Your task to perform on an android device: Add razer kraken to the cart on newegg.com Image 0: 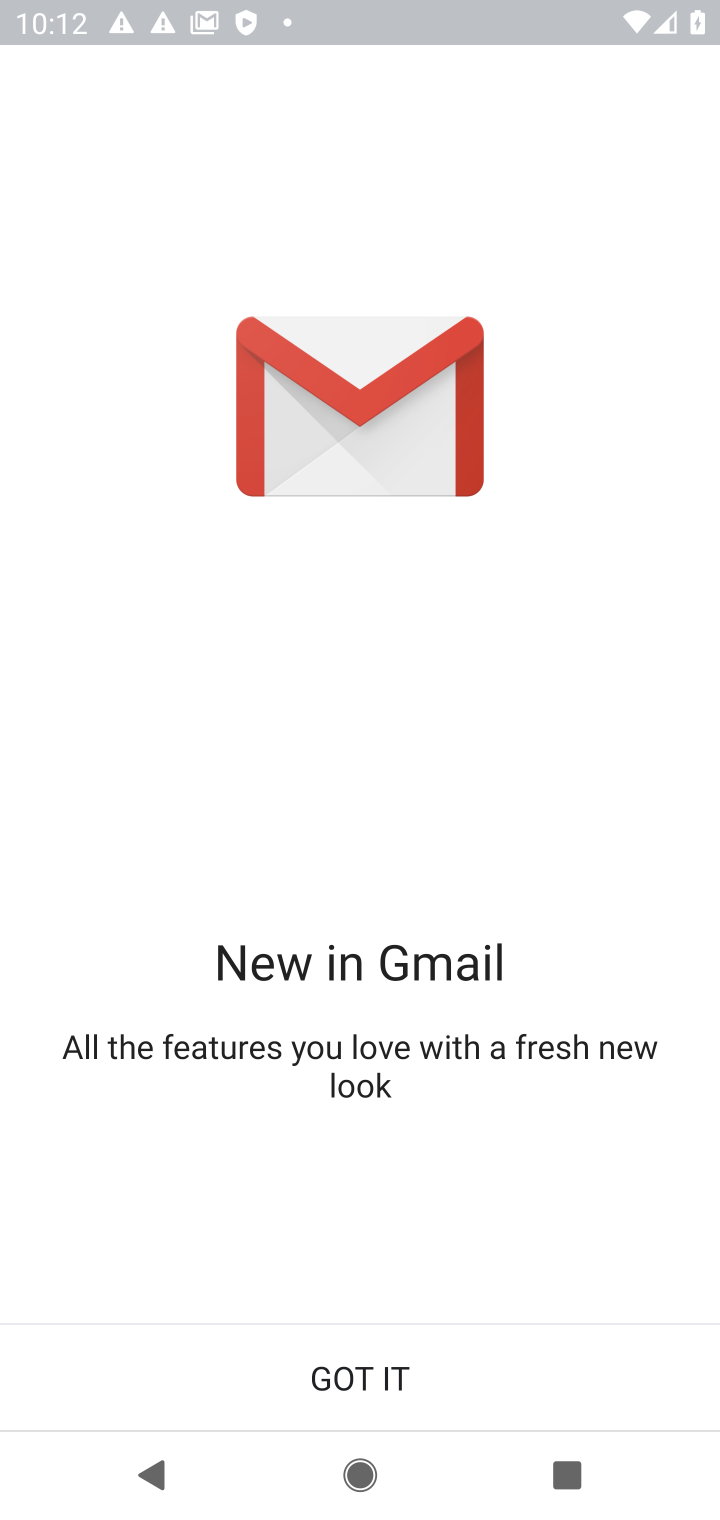
Step 0: press home button
Your task to perform on an android device: Add razer kraken to the cart on newegg.com Image 1: 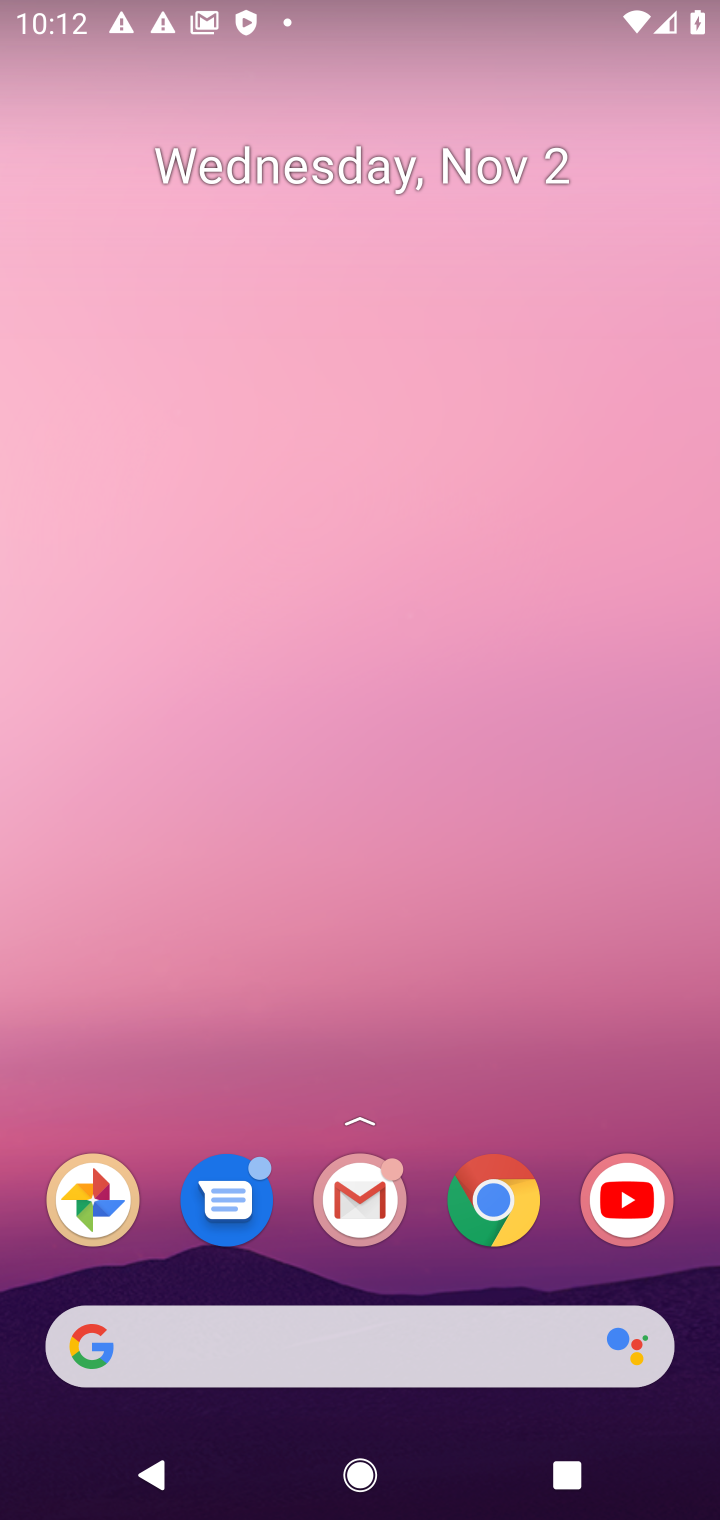
Step 1: click (479, 1203)
Your task to perform on an android device: Add razer kraken to the cart on newegg.com Image 2: 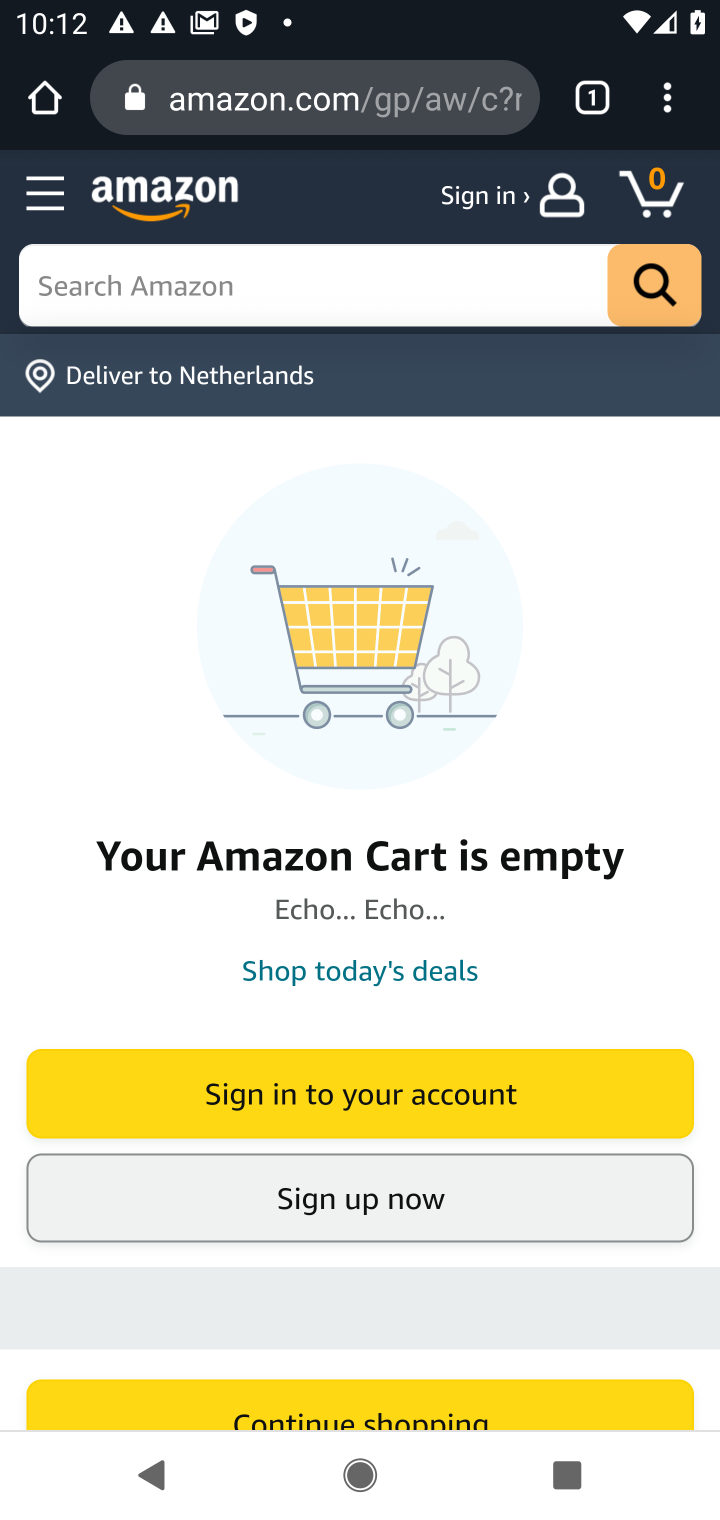
Step 2: click (43, 90)
Your task to perform on an android device: Add razer kraken to the cart on newegg.com Image 3: 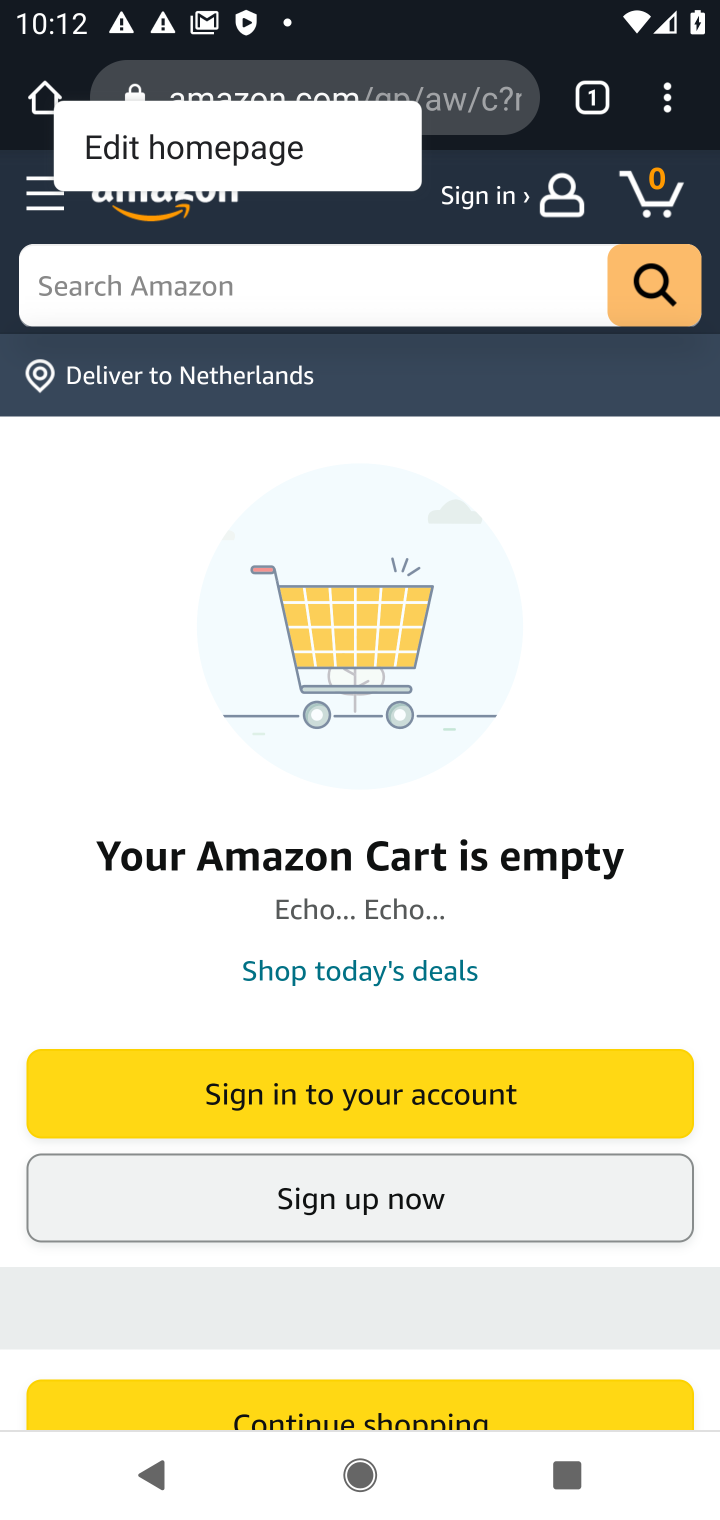
Step 3: click (437, 81)
Your task to perform on an android device: Add razer kraken to the cart on newegg.com Image 4: 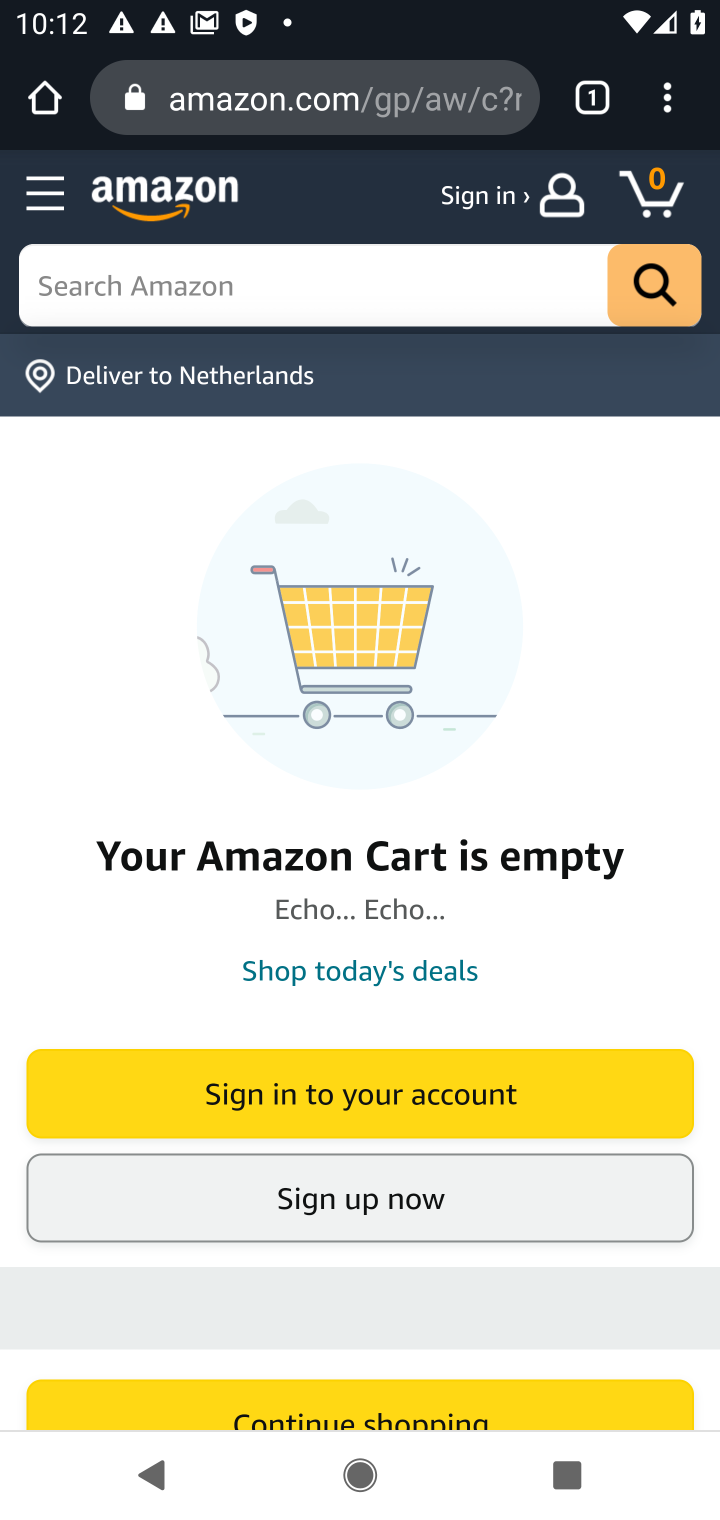
Step 4: click (441, 95)
Your task to perform on an android device: Add razer kraken to the cart on newegg.com Image 5: 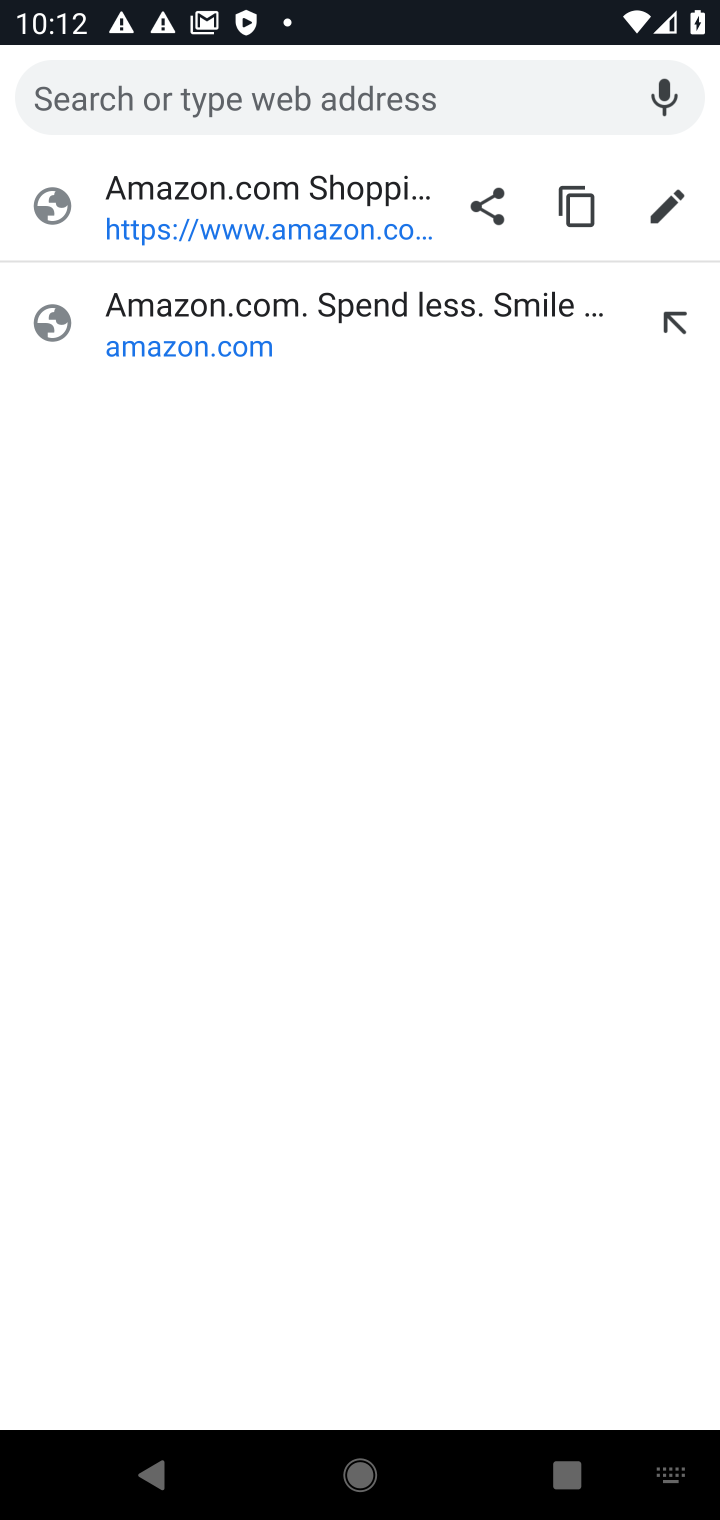
Step 5: type "newegg"
Your task to perform on an android device: Add razer kraken to the cart on newegg.com Image 6: 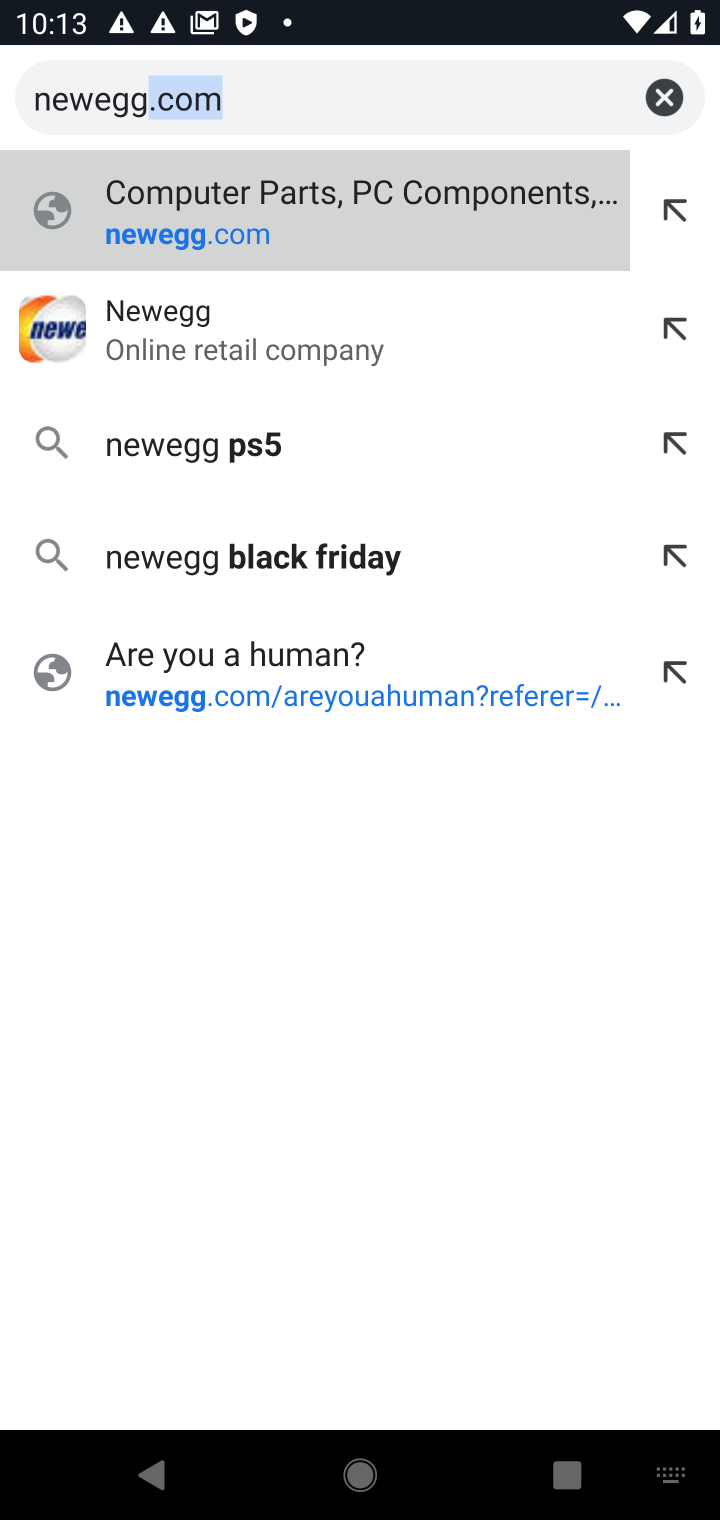
Step 6: click (582, 101)
Your task to perform on an android device: Add razer kraken to the cart on newegg.com Image 7: 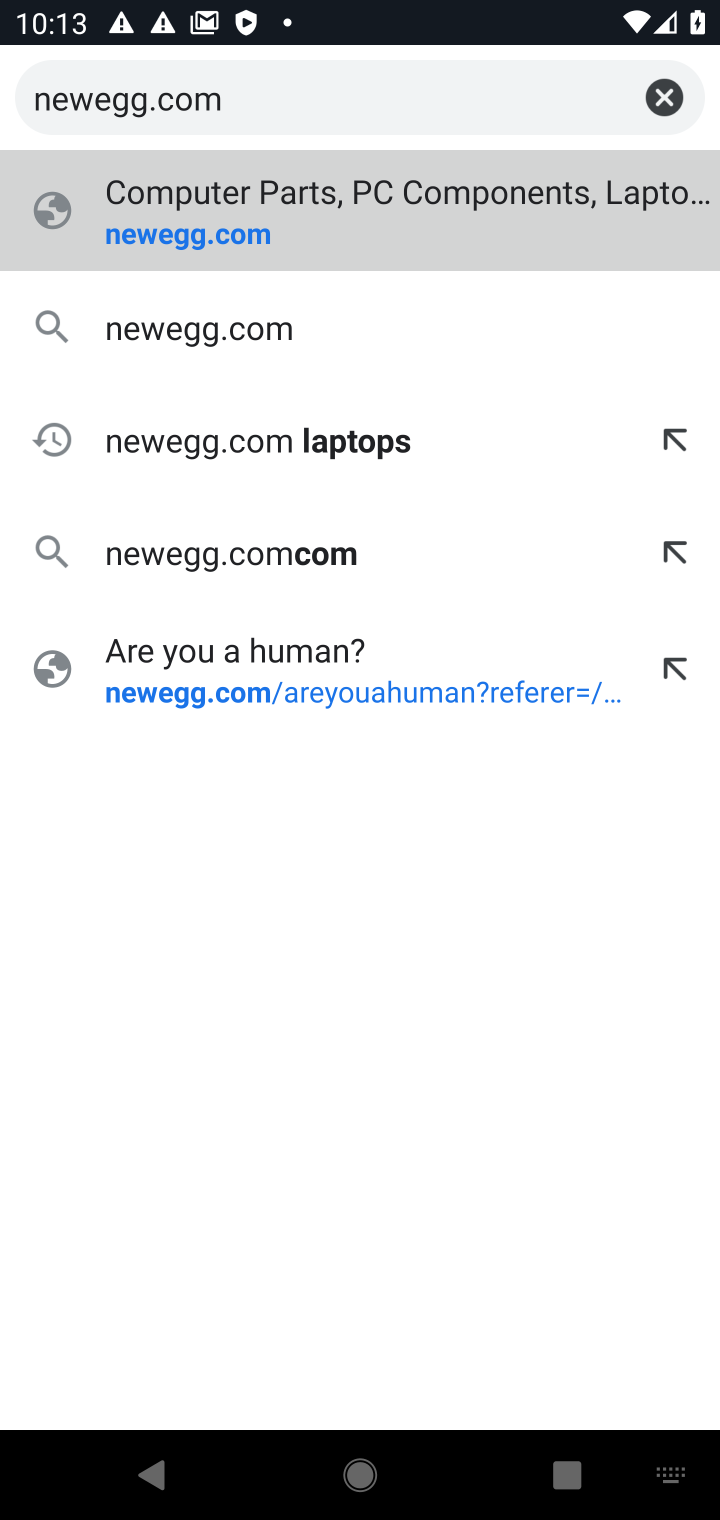
Step 7: click (267, 316)
Your task to perform on an android device: Add razer kraken to the cart on newegg.com Image 8: 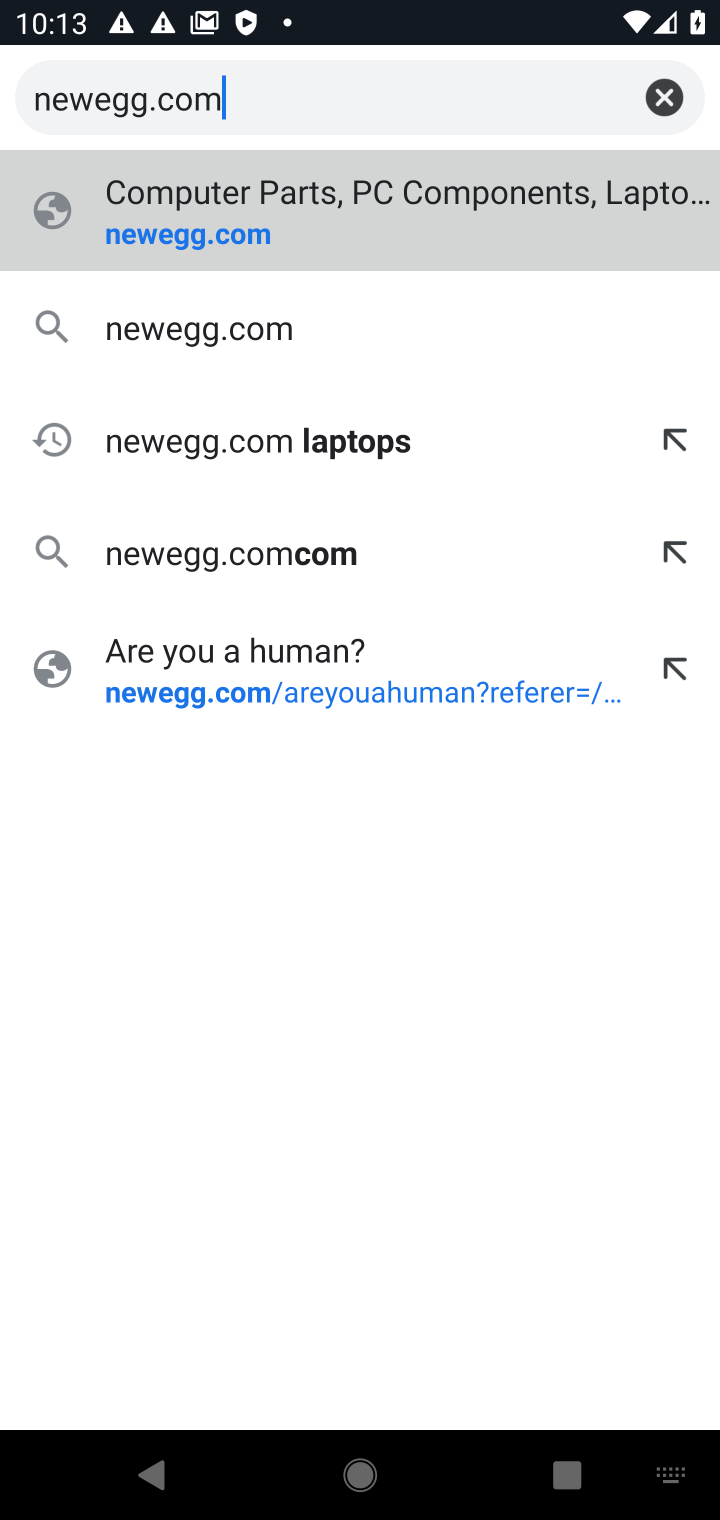
Step 8: click (267, 316)
Your task to perform on an android device: Add razer kraken to the cart on newegg.com Image 9: 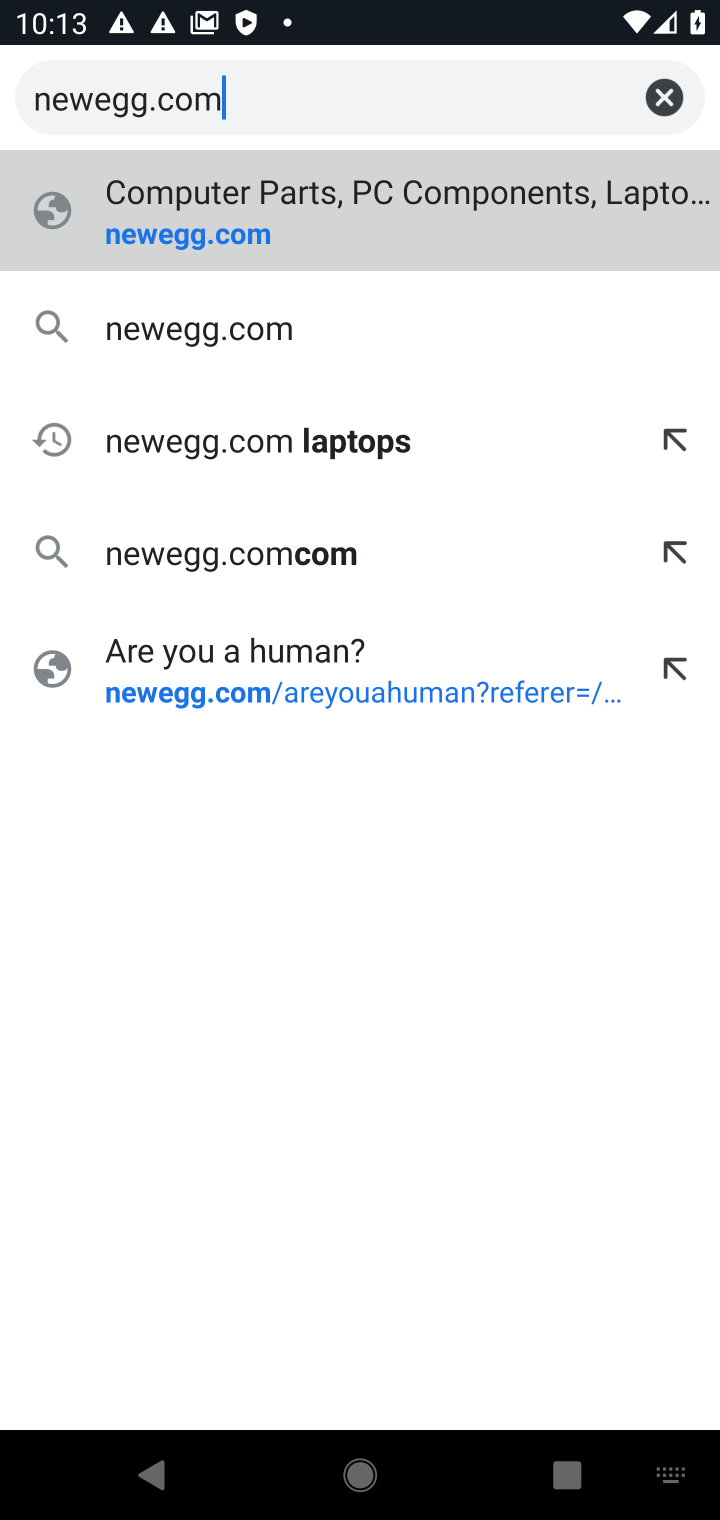
Step 9: click (267, 316)
Your task to perform on an android device: Add razer kraken to the cart on newegg.com Image 10: 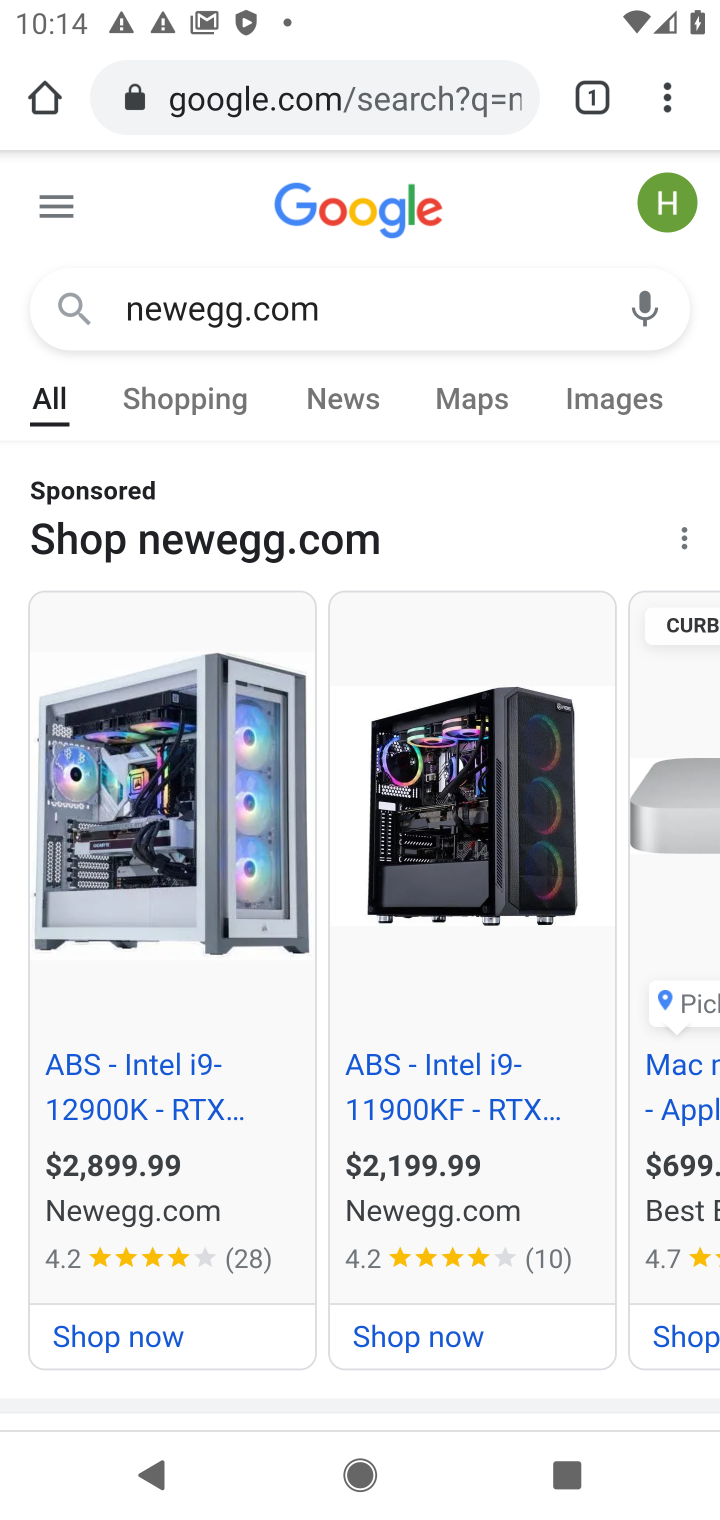
Step 10: drag from (295, 1171) to (366, 536)
Your task to perform on an android device: Add razer kraken to the cart on newegg.com Image 11: 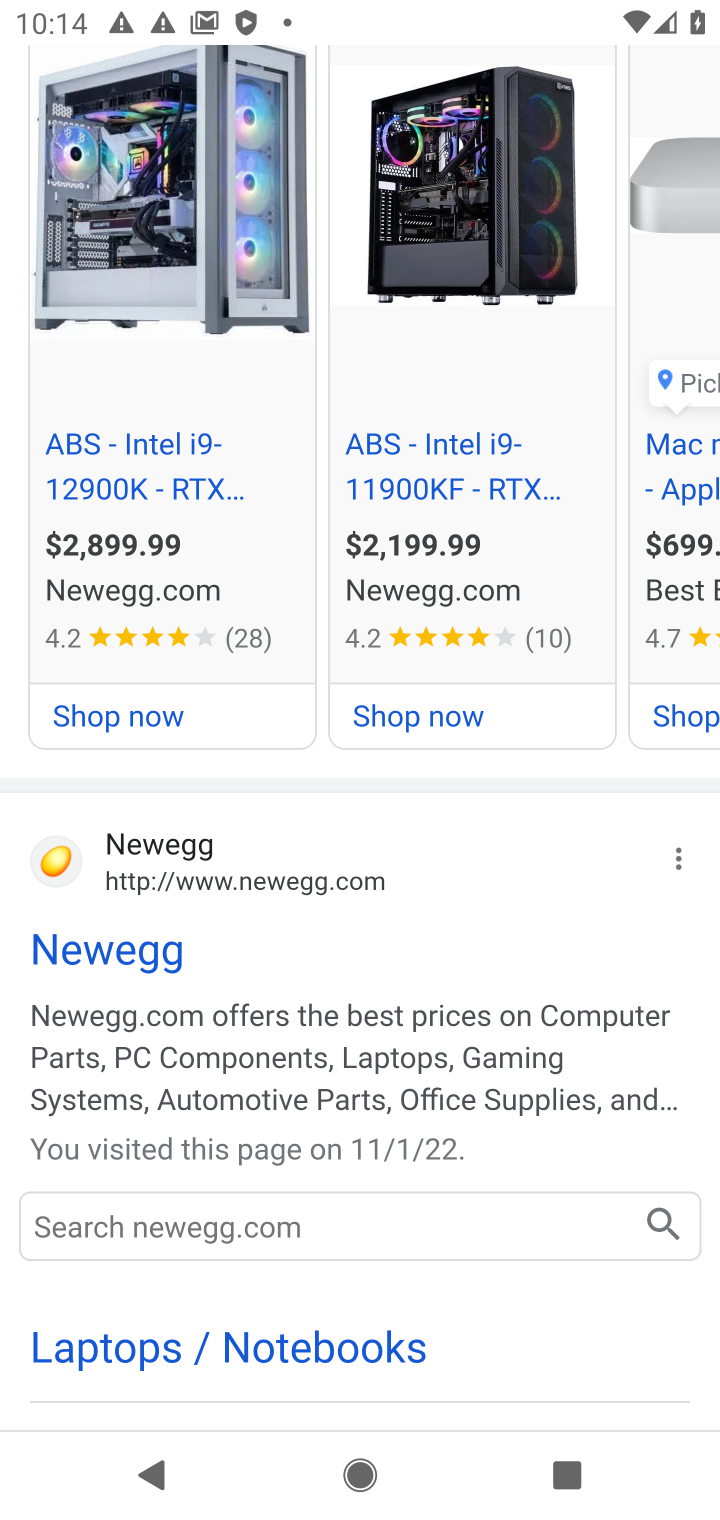
Step 11: drag from (316, 816) to (436, 365)
Your task to perform on an android device: Add razer kraken to the cart on newegg.com Image 12: 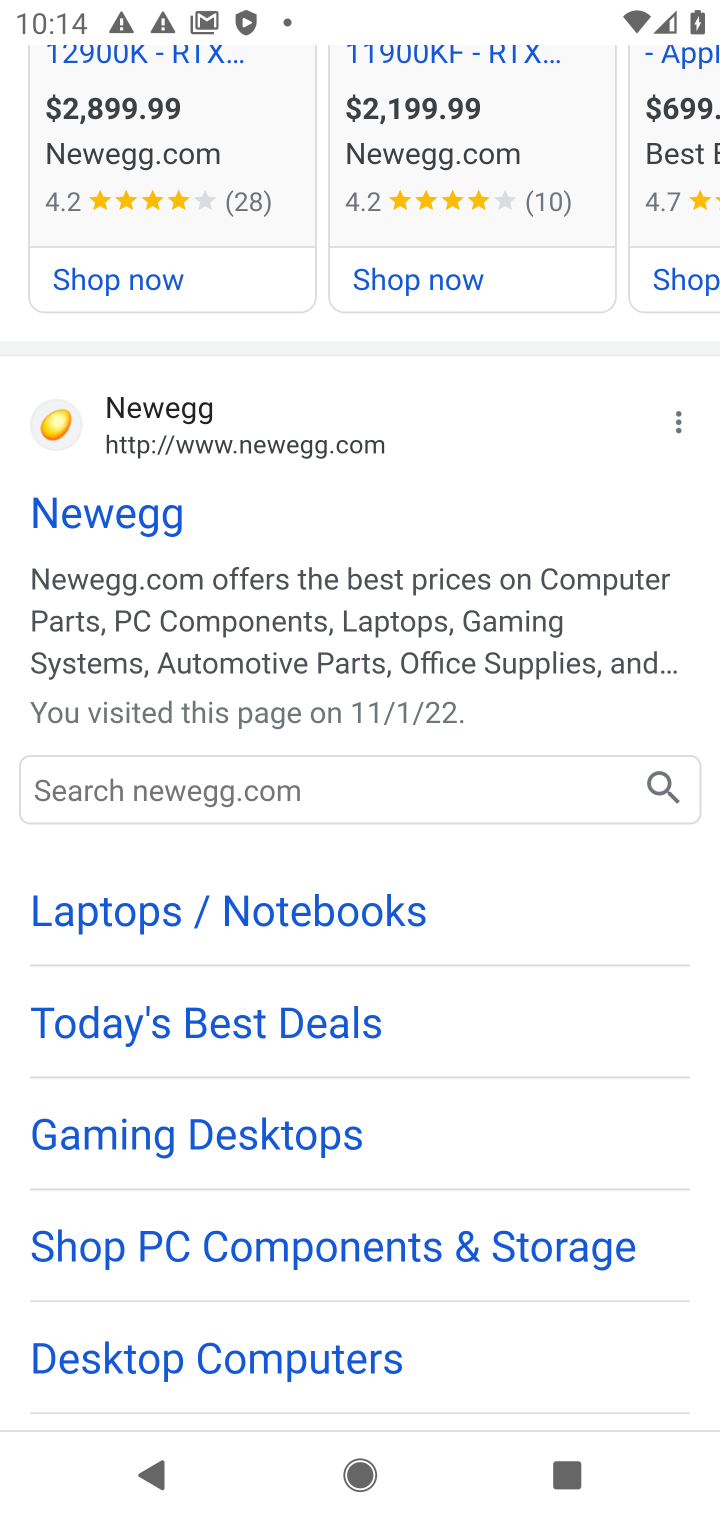
Step 12: drag from (494, 1092) to (650, 484)
Your task to perform on an android device: Add razer kraken to the cart on newegg.com Image 13: 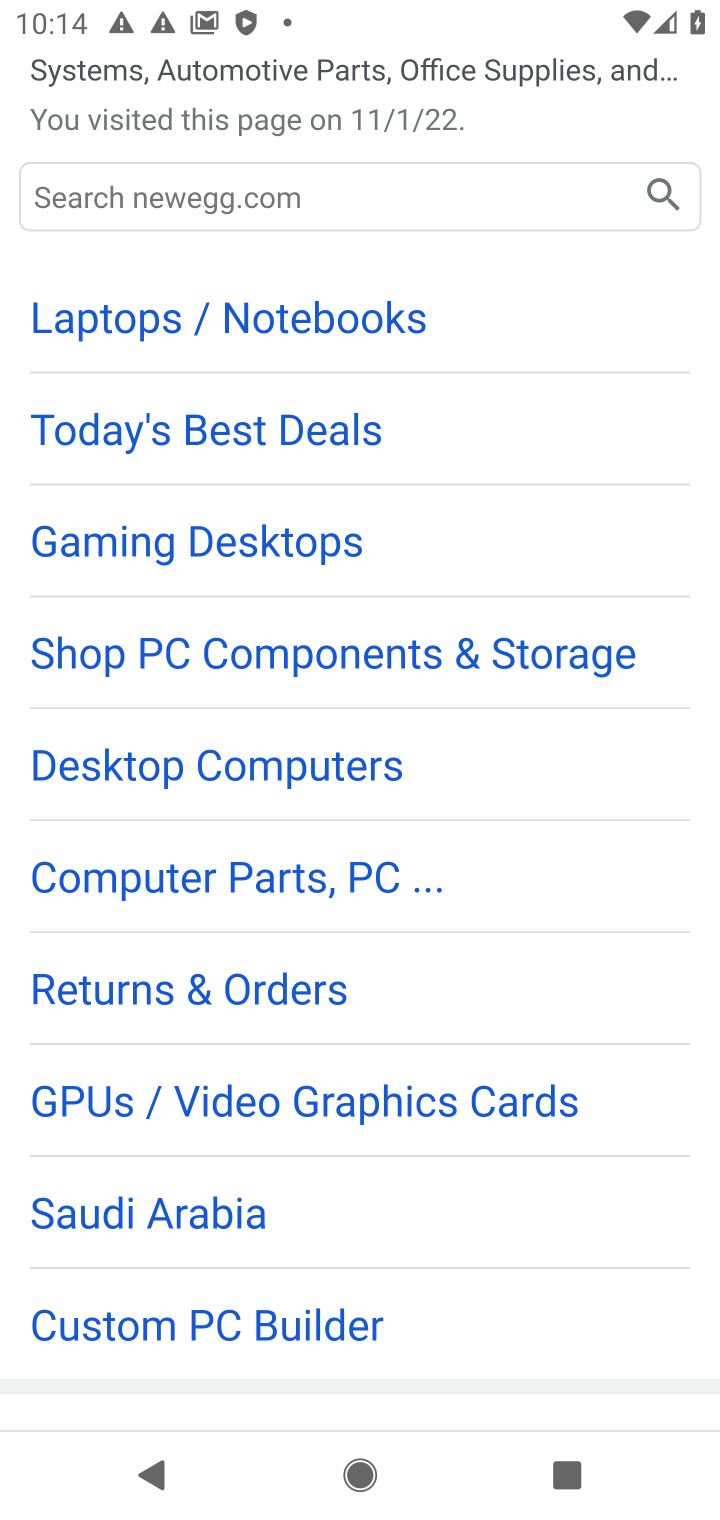
Step 13: drag from (516, 1098) to (575, 571)
Your task to perform on an android device: Add razer kraken to the cart on newegg.com Image 14: 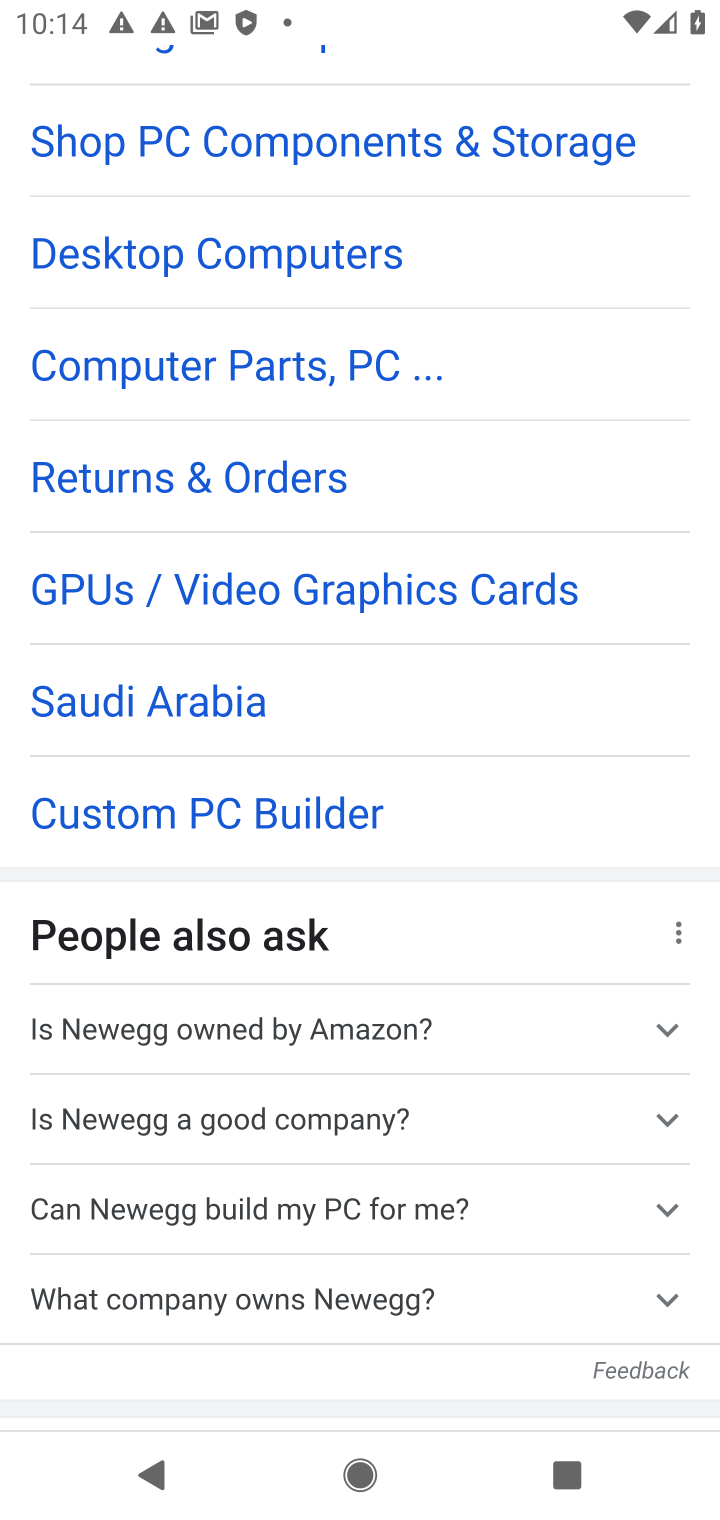
Step 14: drag from (474, 1088) to (504, 511)
Your task to perform on an android device: Add razer kraken to the cart on newegg.com Image 15: 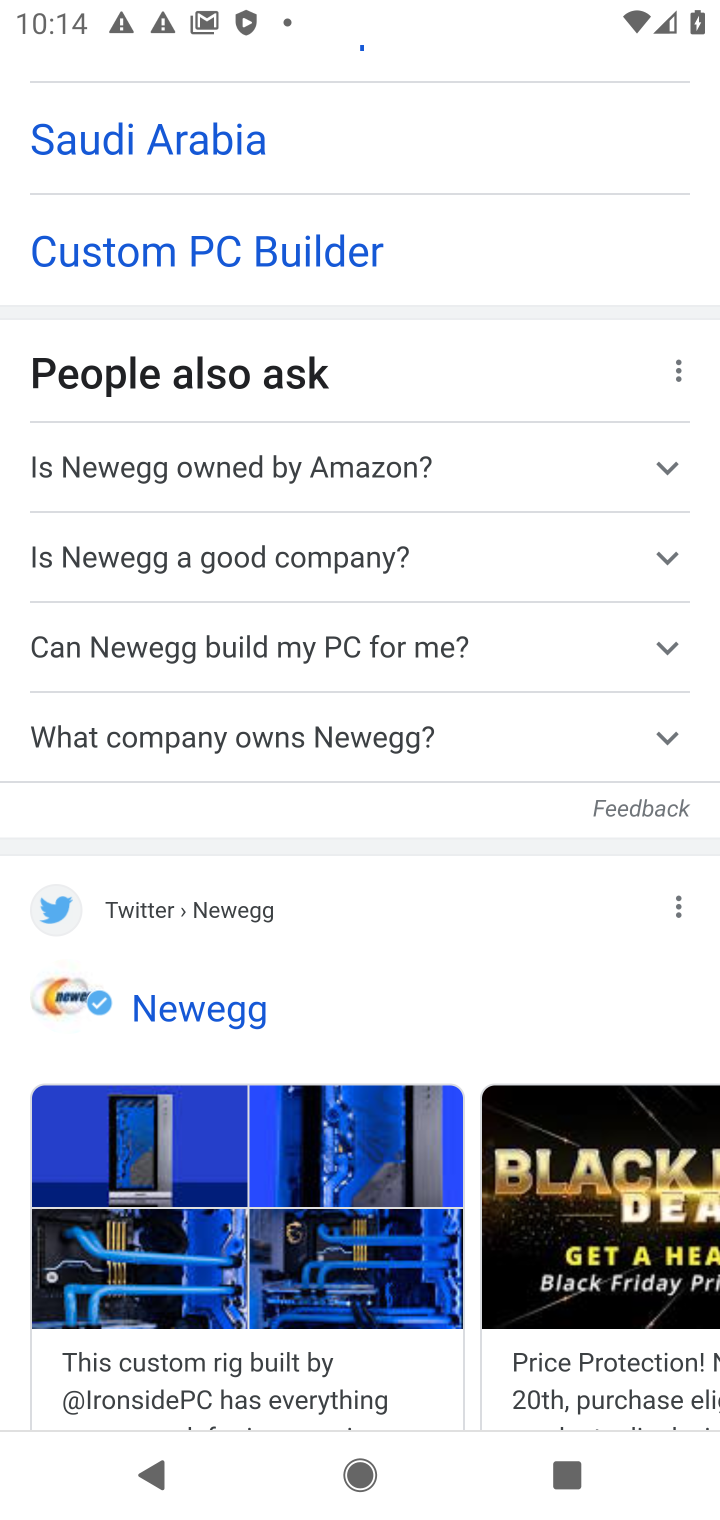
Step 15: drag from (405, 545) to (427, 1296)
Your task to perform on an android device: Add razer kraken to the cart on newegg.com Image 16: 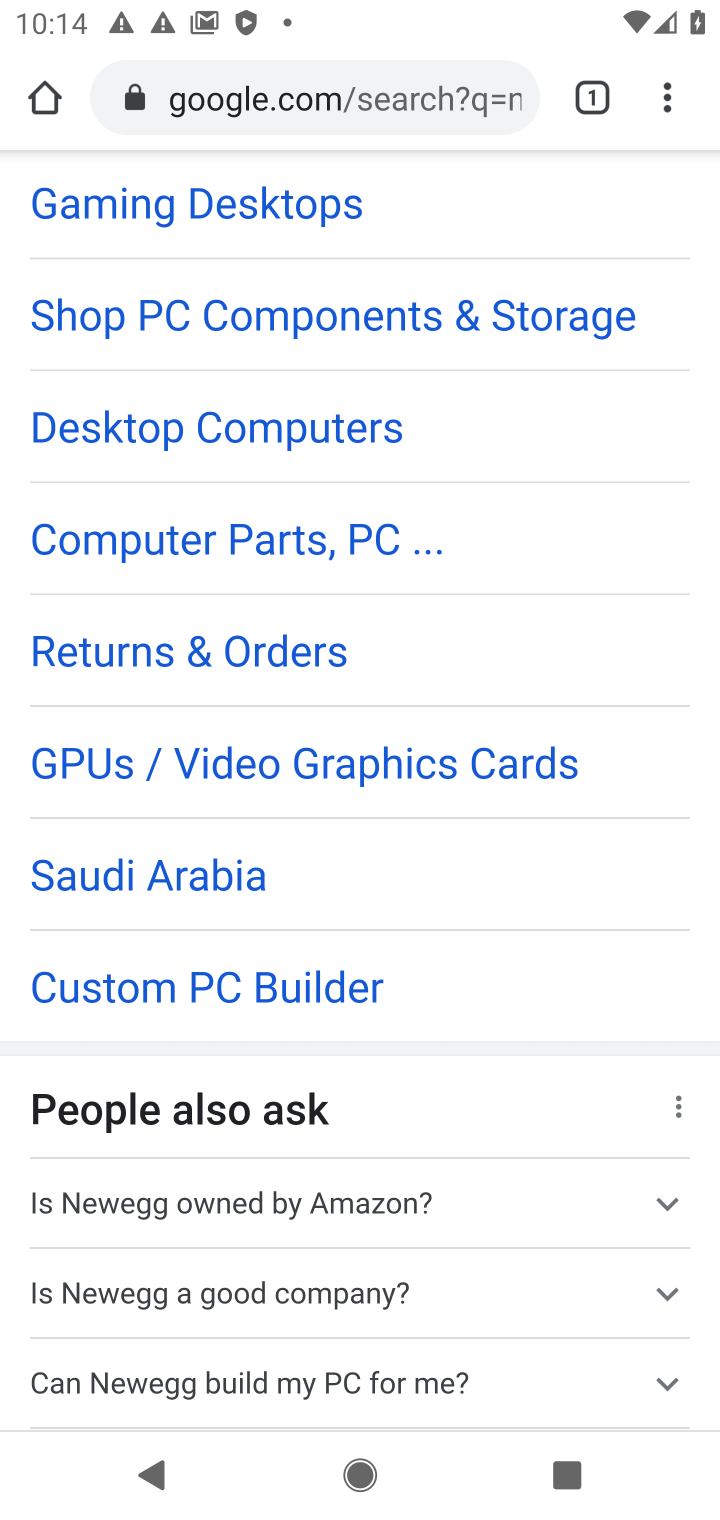
Step 16: drag from (351, 389) to (456, 1094)
Your task to perform on an android device: Add razer kraken to the cart on newegg.com Image 17: 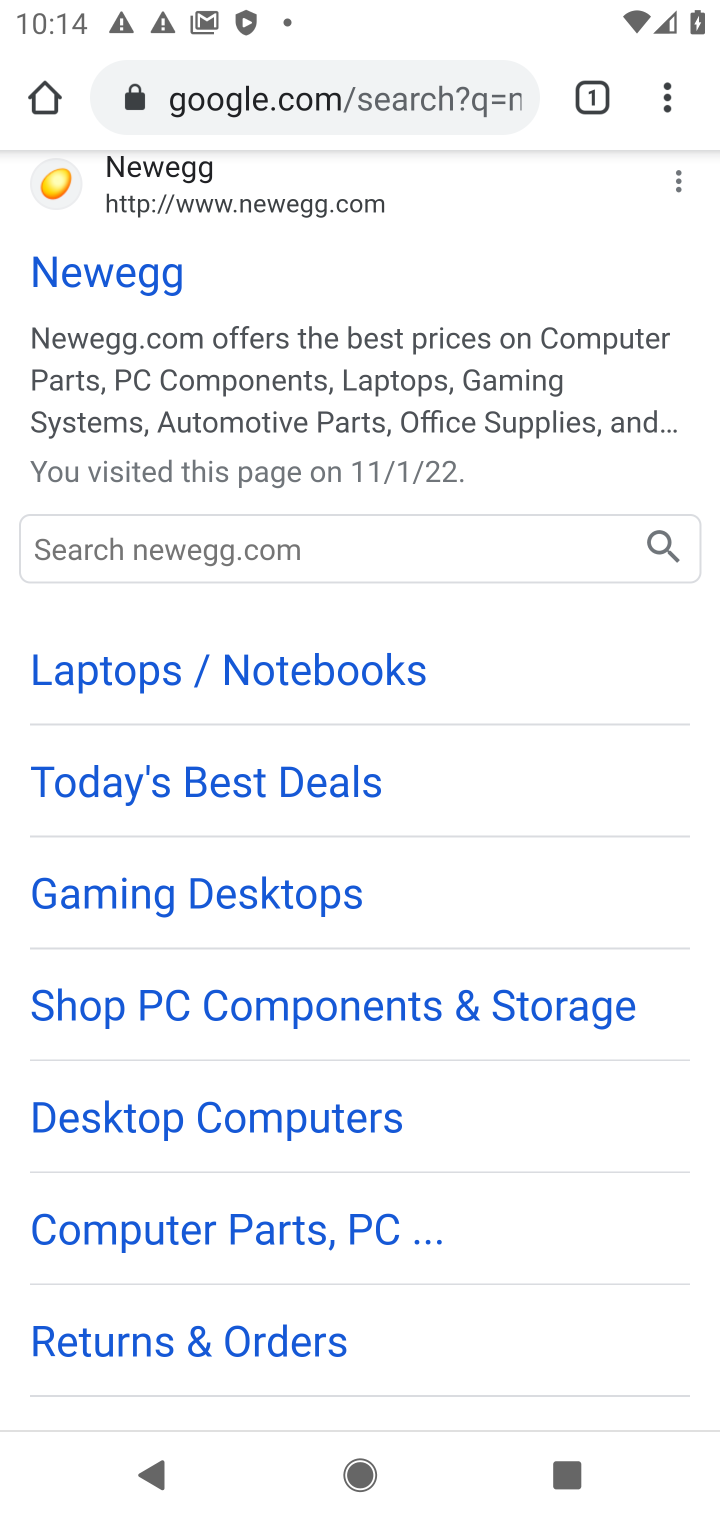
Step 17: click (232, 206)
Your task to perform on an android device: Add razer kraken to the cart on newegg.com Image 18: 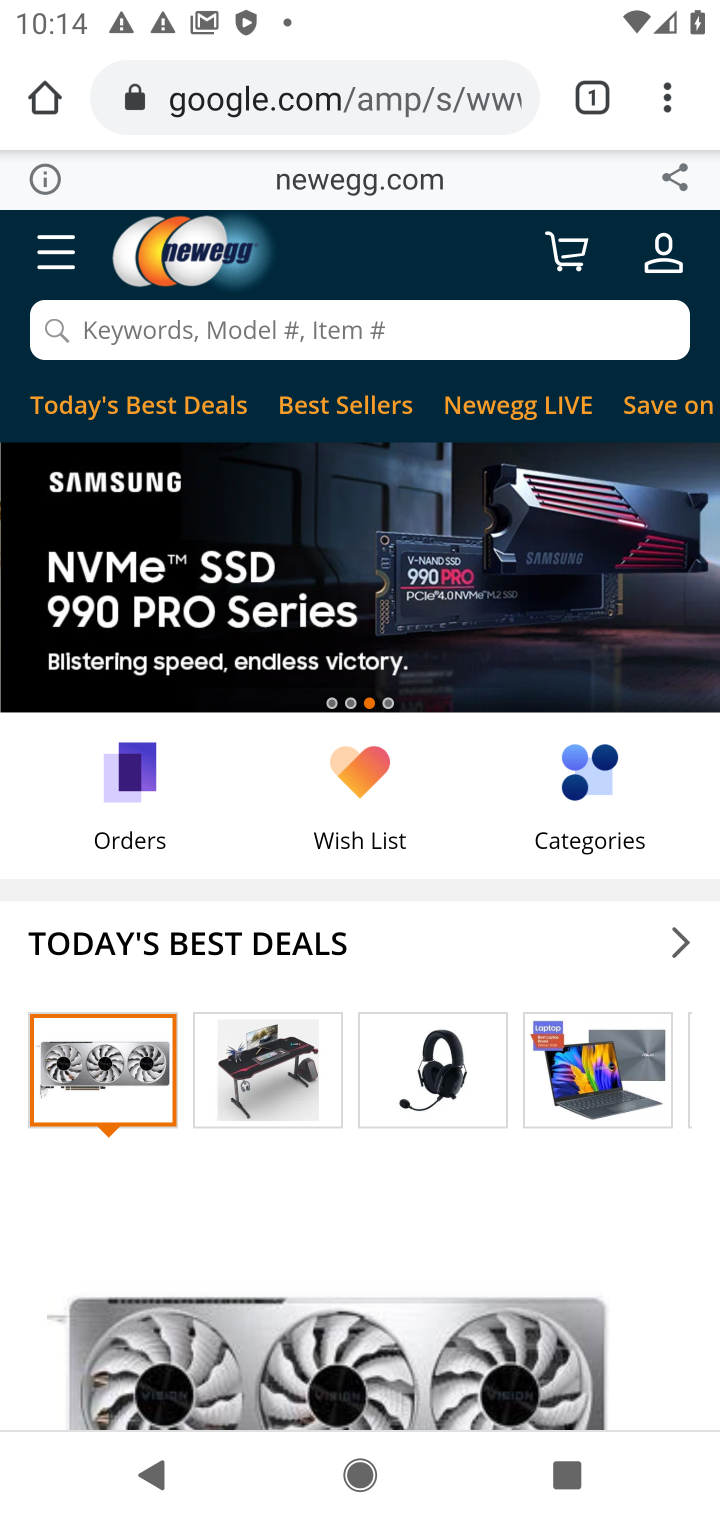
Step 18: click (363, 335)
Your task to perform on an android device: Add razer kraken to the cart on newegg.com Image 19: 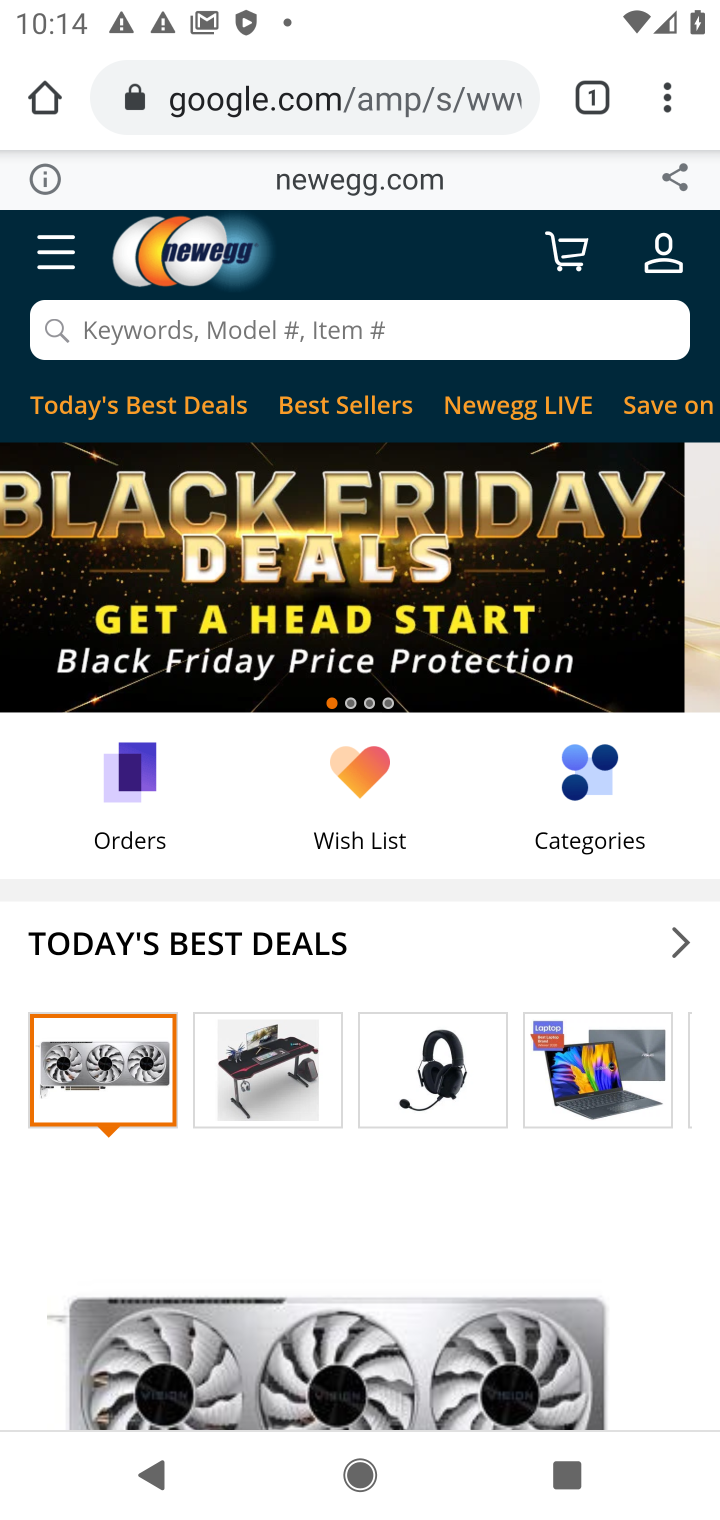
Step 19: click (396, 330)
Your task to perform on an android device: Add razer kraken to the cart on newegg.com Image 20: 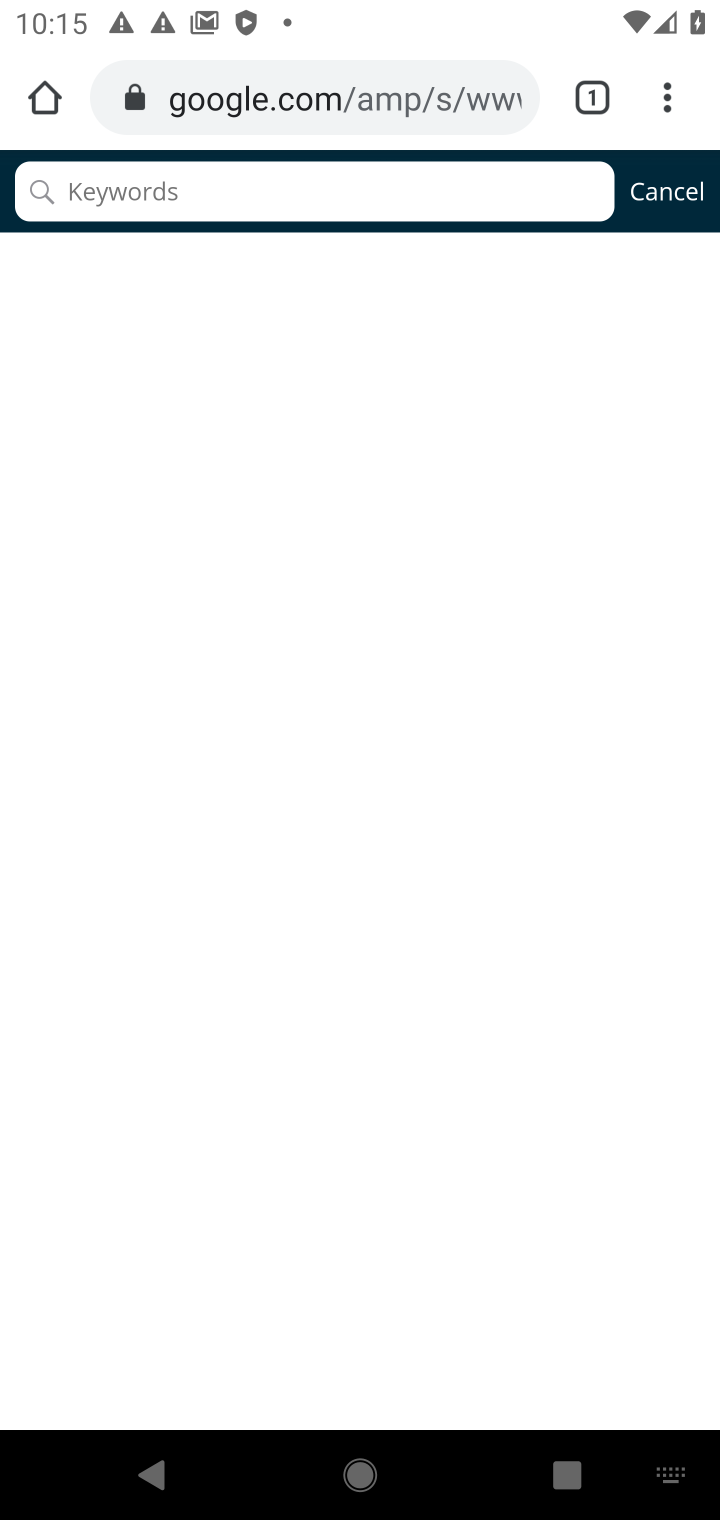
Step 20: type "razer kraken"
Your task to perform on an android device: Add razer kraken to the cart on newegg.com Image 21: 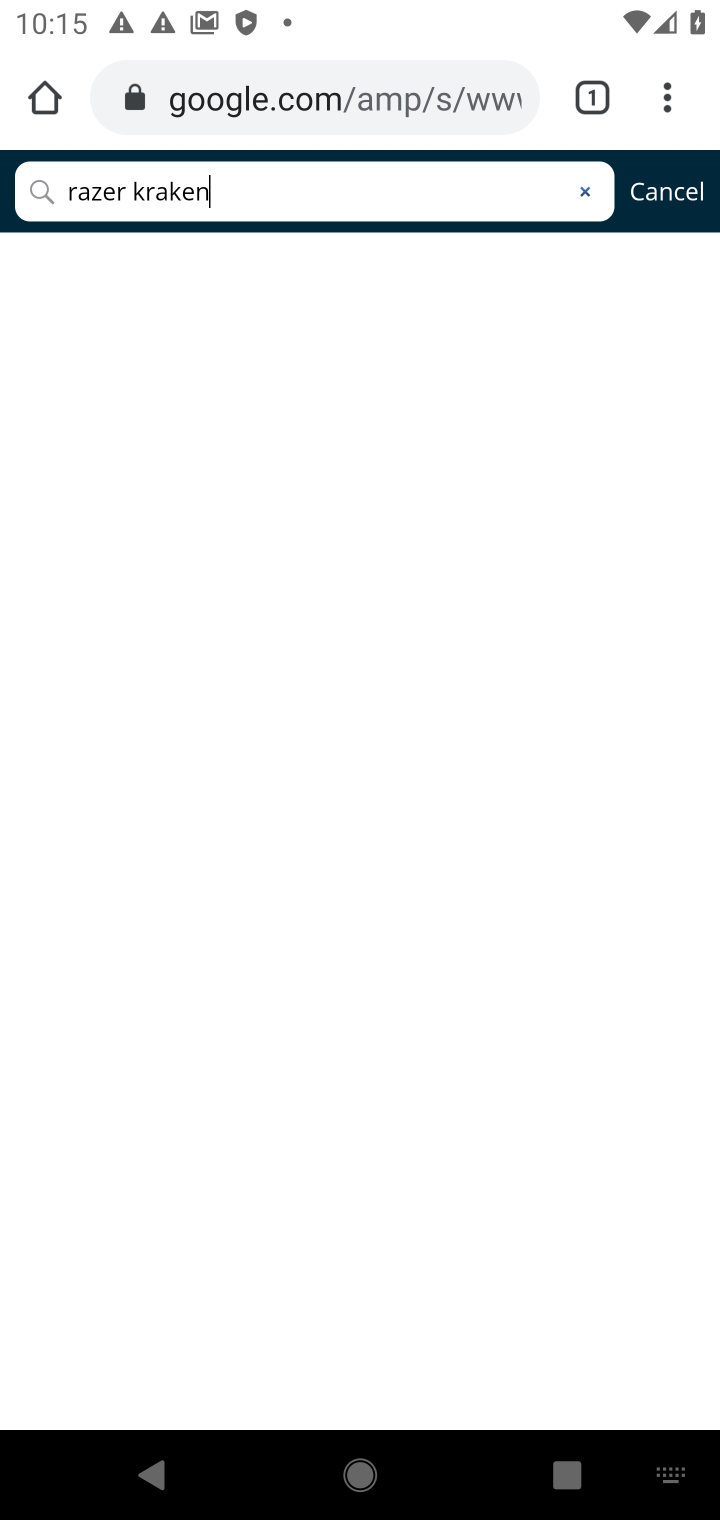
Step 21: press enter
Your task to perform on an android device: Add razer kraken to the cart on newegg.com Image 22: 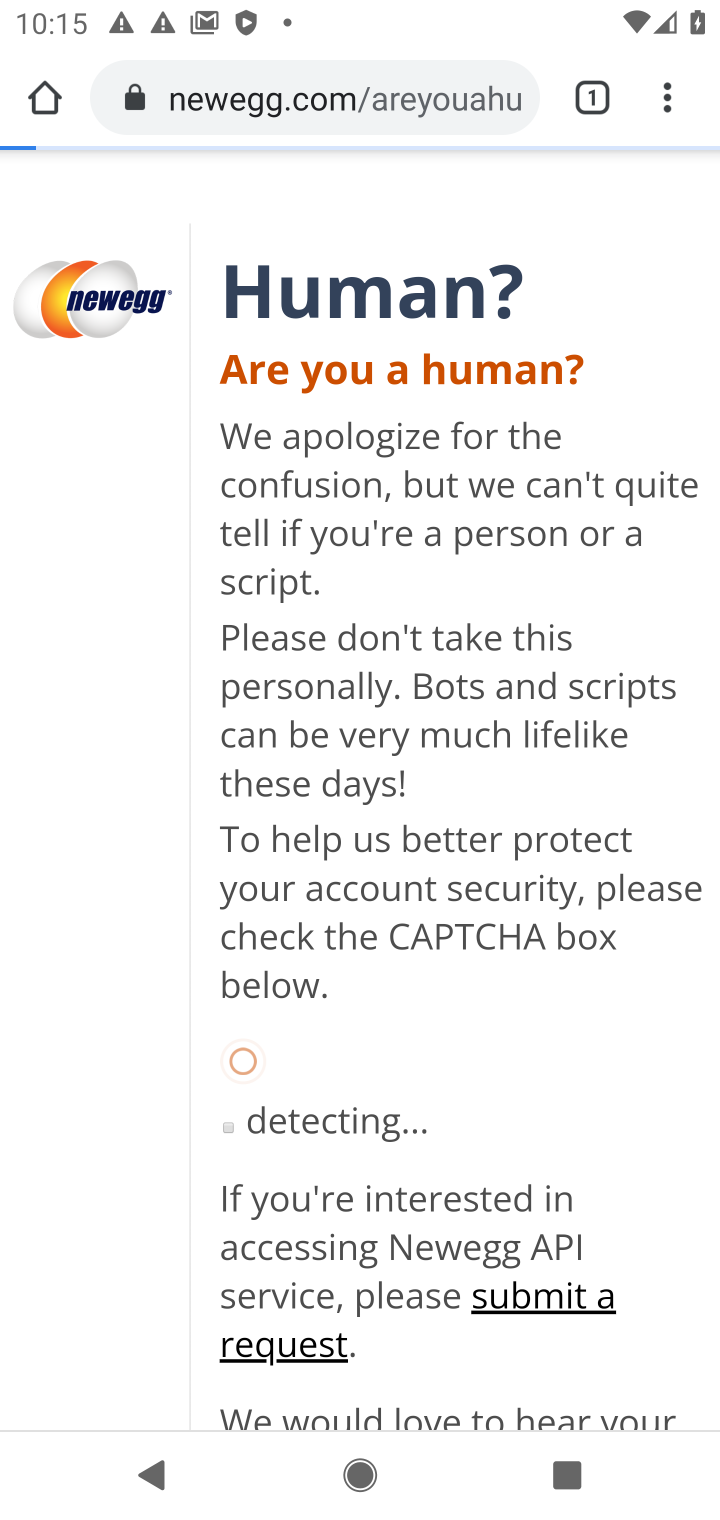
Step 22: task complete